Your task to perform on an android device: Open the camera Image 0: 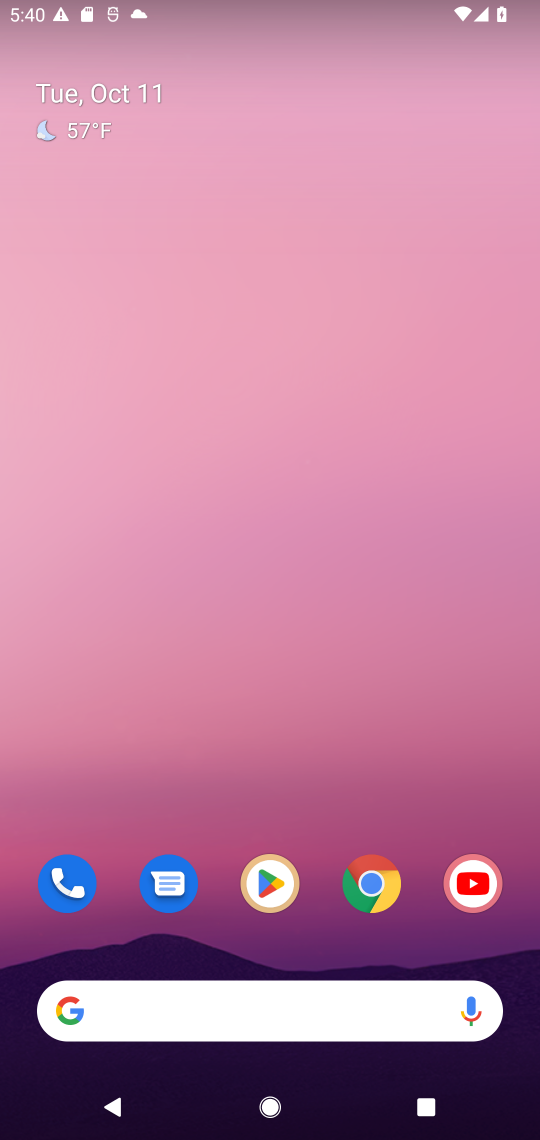
Step 0: drag from (296, 858) to (228, 72)
Your task to perform on an android device: Open the camera Image 1: 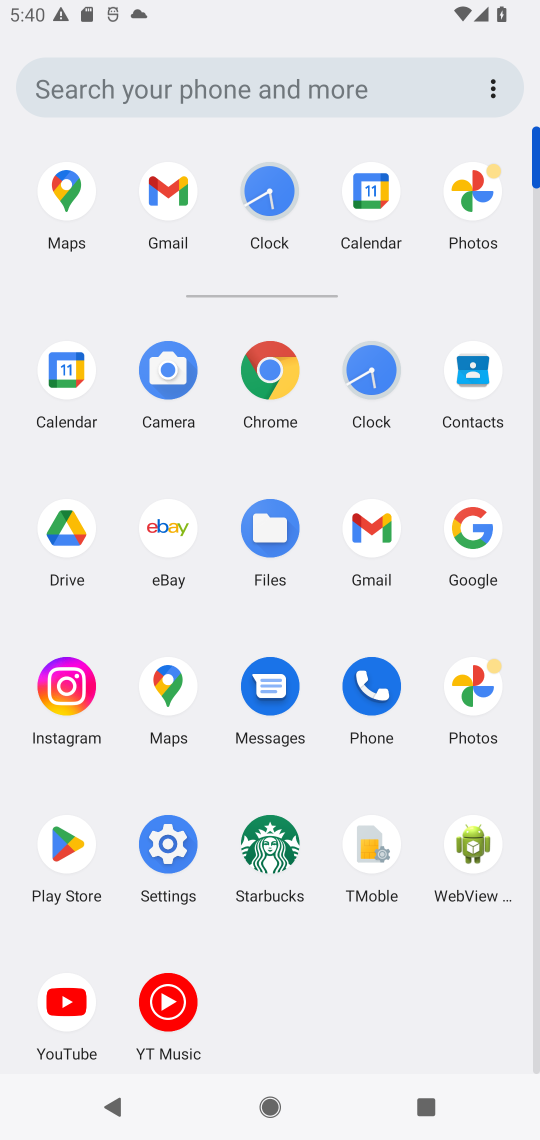
Step 1: click (175, 367)
Your task to perform on an android device: Open the camera Image 2: 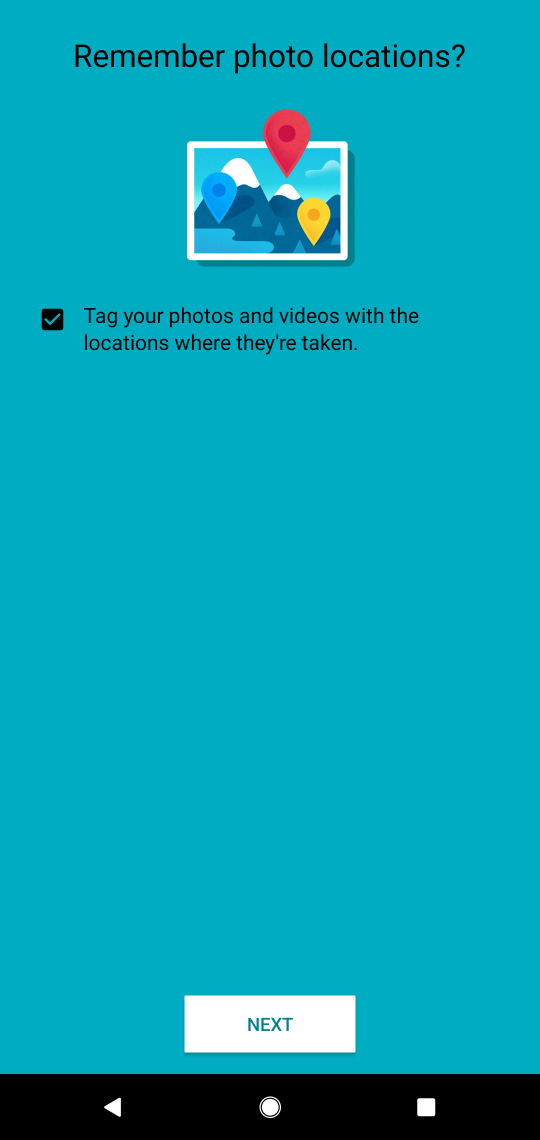
Step 2: click (269, 1005)
Your task to perform on an android device: Open the camera Image 3: 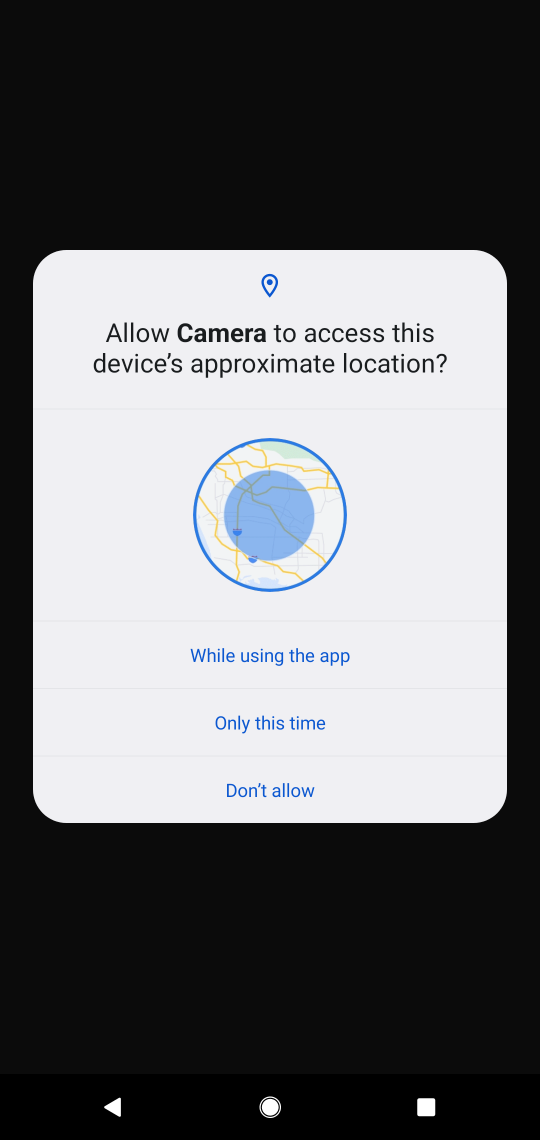
Step 3: click (293, 798)
Your task to perform on an android device: Open the camera Image 4: 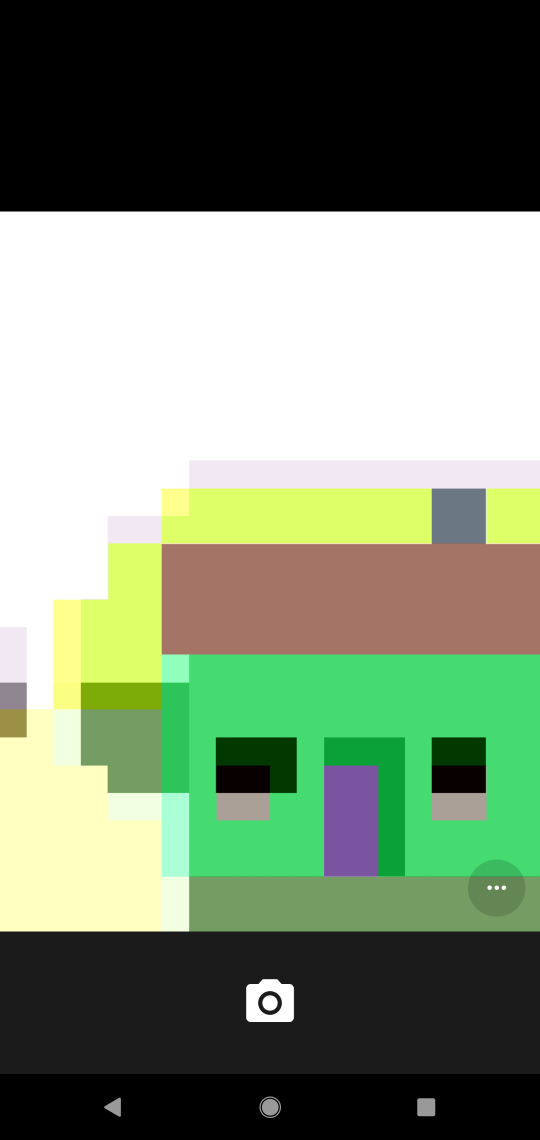
Step 4: task complete